Your task to perform on an android device: stop showing notifications on the lock screen Image 0: 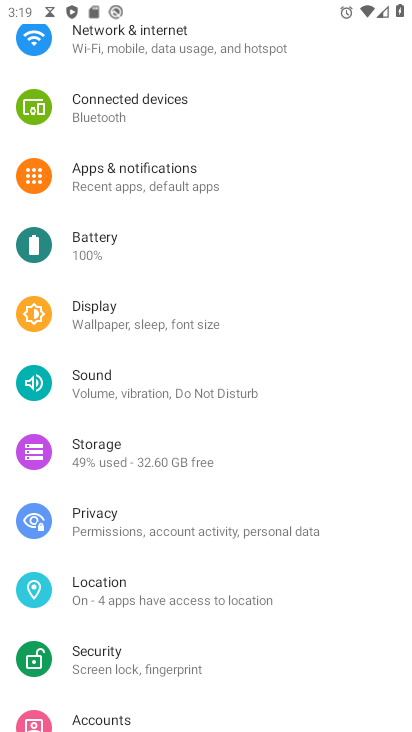
Step 0: click (146, 170)
Your task to perform on an android device: stop showing notifications on the lock screen Image 1: 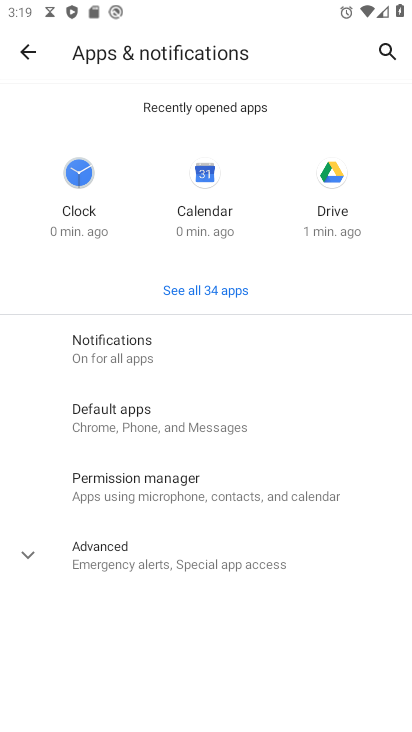
Step 1: click (114, 346)
Your task to perform on an android device: stop showing notifications on the lock screen Image 2: 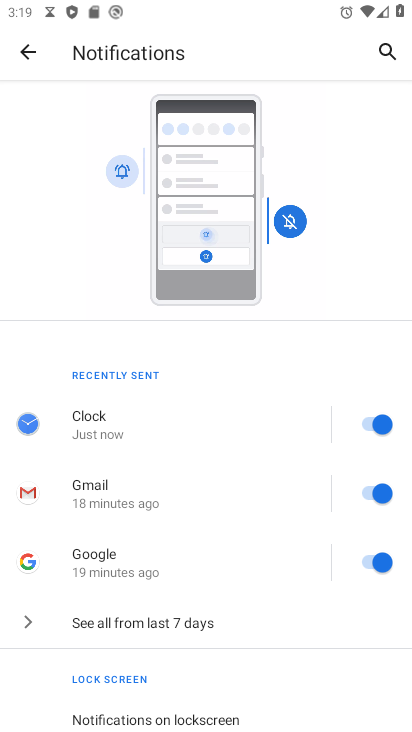
Step 2: drag from (180, 667) to (184, 352)
Your task to perform on an android device: stop showing notifications on the lock screen Image 3: 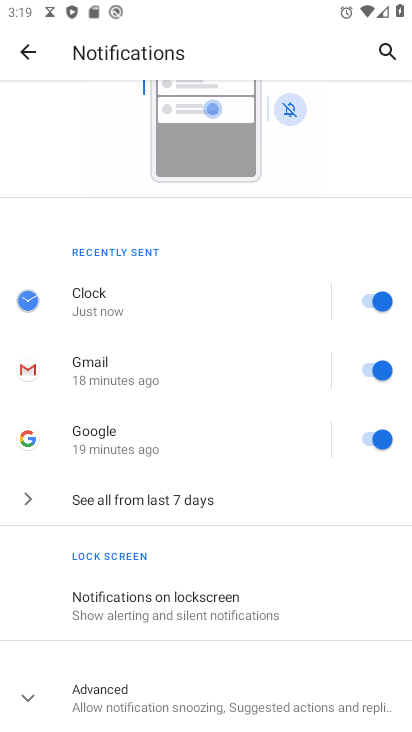
Step 3: click (167, 608)
Your task to perform on an android device: stop showing notifications on the lock screen Image 4: 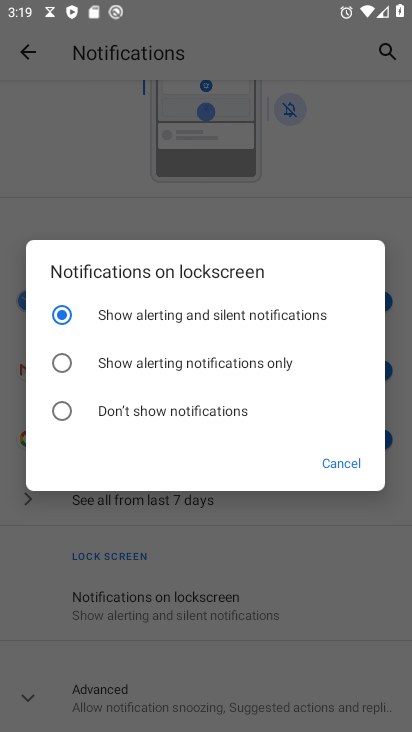
Step 4: click (61, 409)
Your task to perform on an android device: stop showing notifications on the lock screen Image 5: 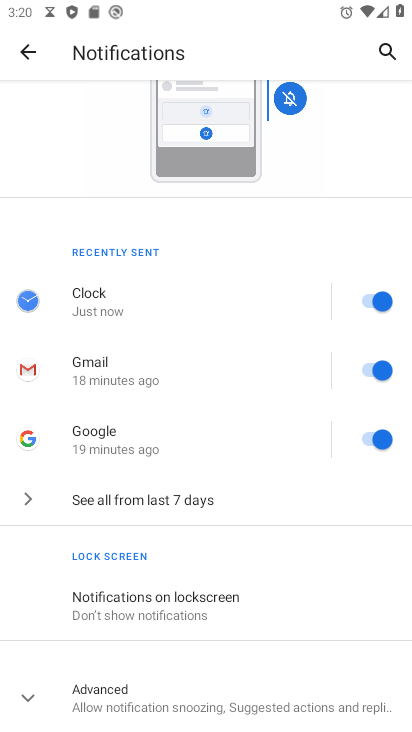
Step 5: task complete